Your task to perform on an android device: open the mobile data screen to see how much data has been used Image 0: 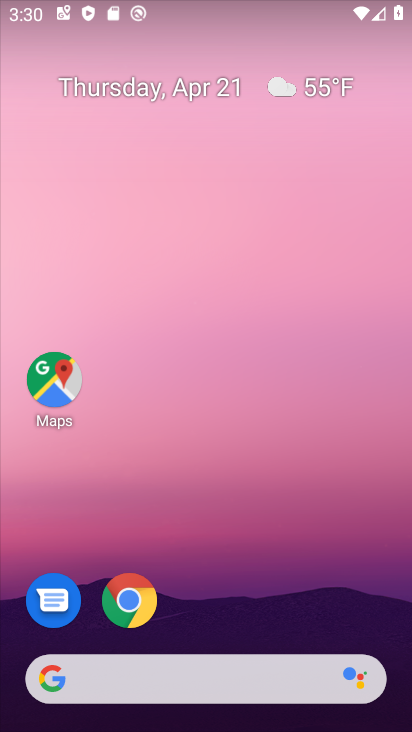
Step 0: drag from (198, 673) to (301, 176)
Your task to perform on an android device: open the mobile data screen to see how much data has been used Image 1: 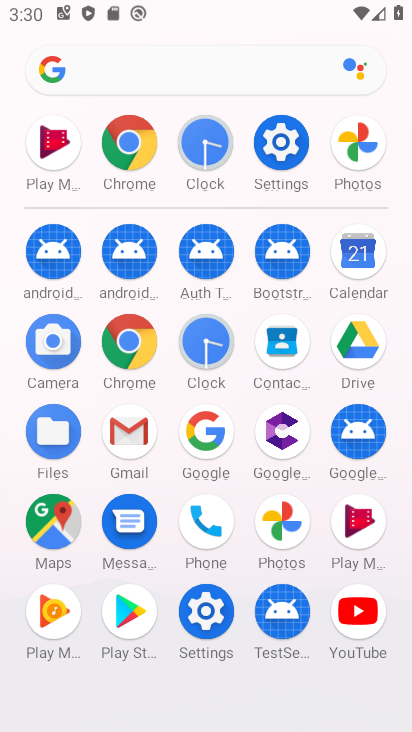
Step 1: click (277, 152)
Your task to perform on an android device: open the mobile data screen to see how much data has been used Image 2: 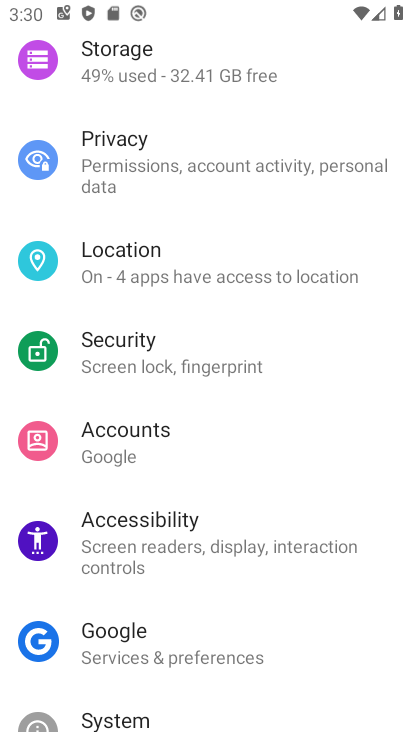
Step 2: drag from (300, 120) to (315, 523)
Your task to perform on an android device: open the mobile data screen to see how much data has been used Image 3: 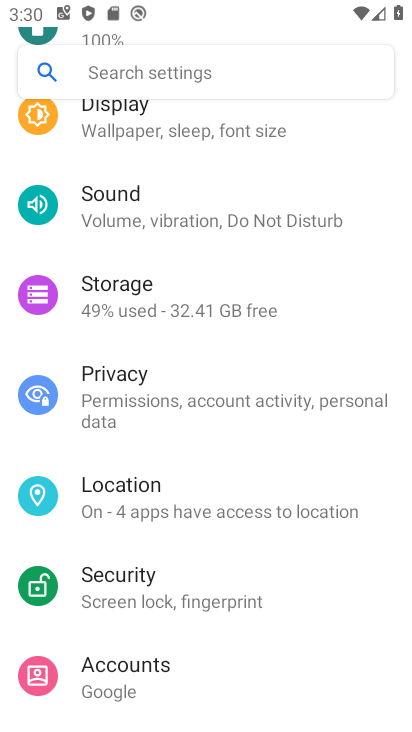
Step 3: drag from (241, 168) to (260, 558)
Your task to perform on an android device: open the mobile data screen to see how much data has been used Image 4: 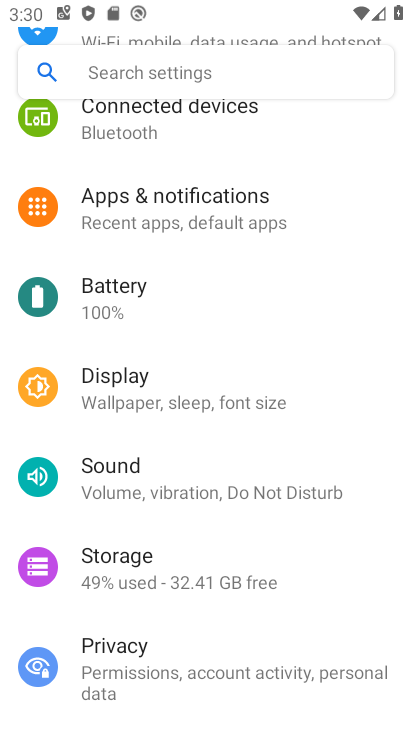
Step 4: drag from (230, 151) to (255, 566)
Your task to perform on an android device: open the mobile data screen to see how much data has been used Image 5: 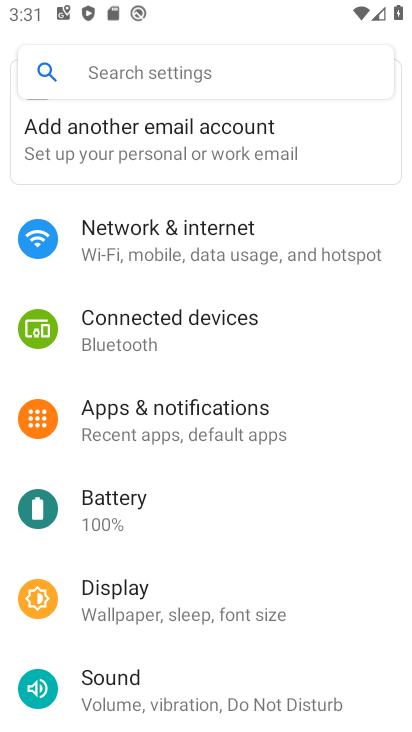
Step 5: click (199, 247)
Your task to perform on an android device: open the mobile data screen to see how much data has been used Image 6: 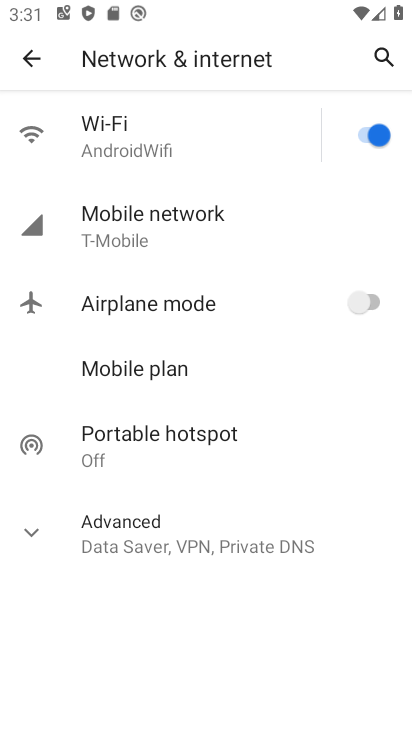
Step 6: click (175, 223)
Your task to perform on an android device: open the mobile data screen to see how much data has been used Image 7: 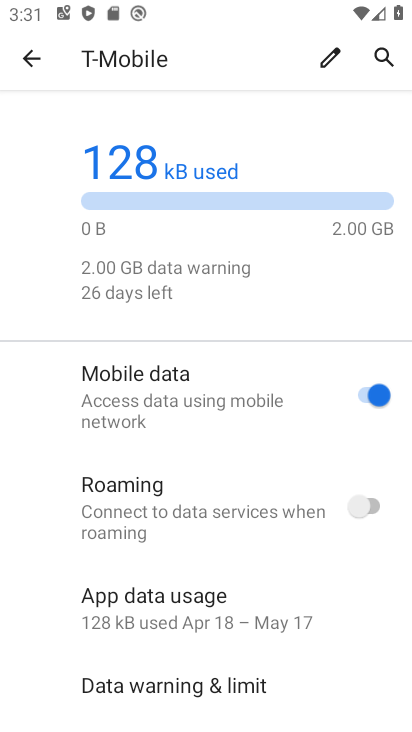
Step 7: task complete